Your task to perform on an android device: Open notification settings Image 0: 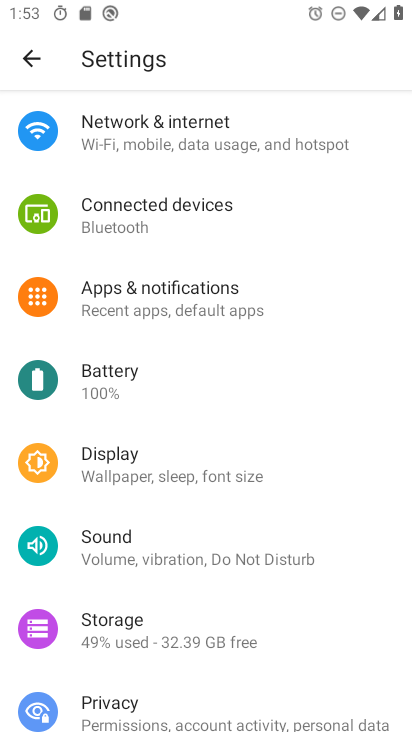
Step 0: press home button
Your task to perform on an android device: Open notification settings Image 1: 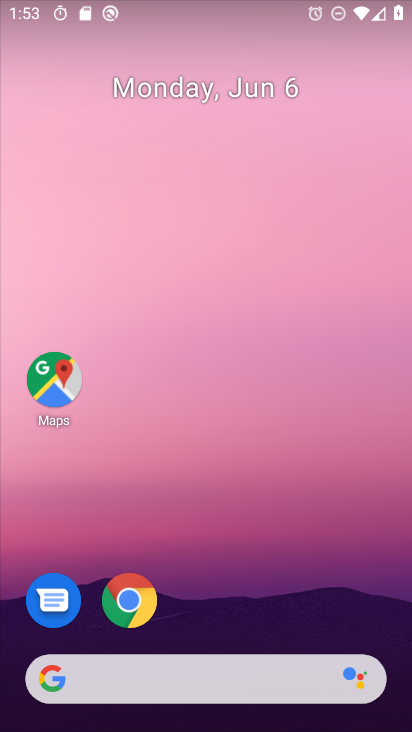
Step 1: drag from (214, 644) to (226, 114)
Your task to perform on an android device: Open notification settings Image 2: 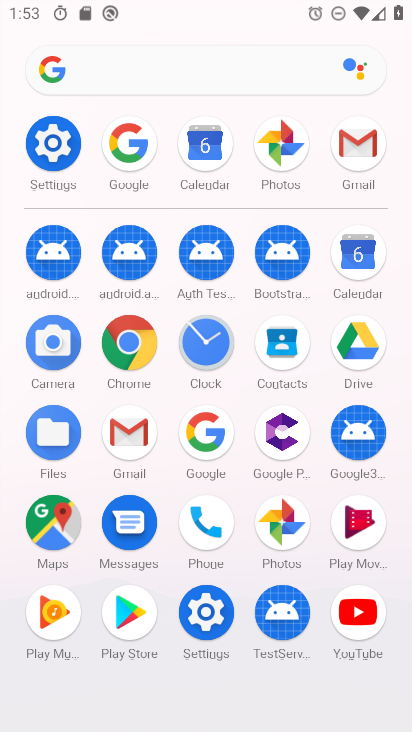
Step 2: click (66, 172)
Your task to perform on an android device: Open notification settings Image 3: 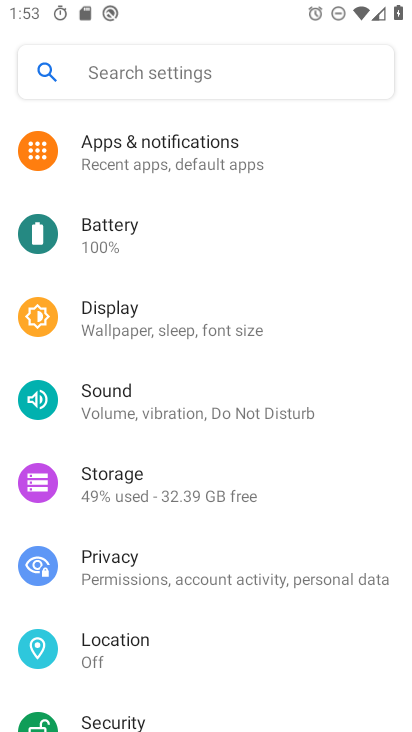
Step 3: click (226, 157)
Your task to perform on an android device: Open notification settings Image 4: 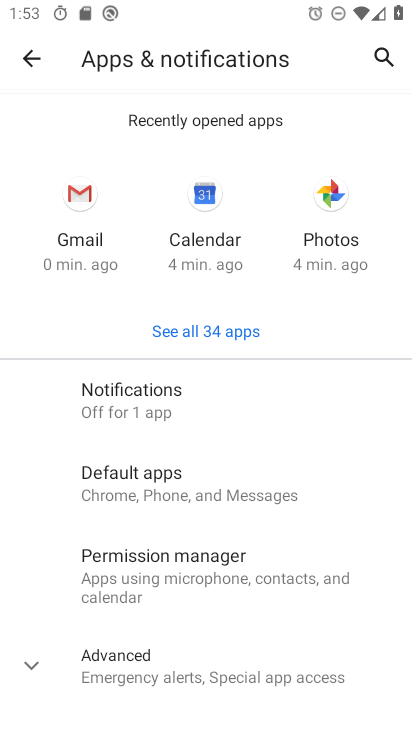
Step 4: click (197, 409)
Your task to perform on an android device: Open notification settings Image 5: 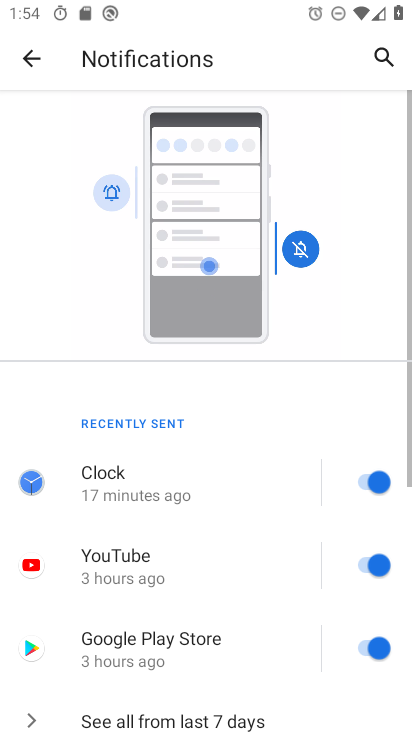
Step 5: task complete